Your task to perform on an android device: toggle airplane mode Image 0: 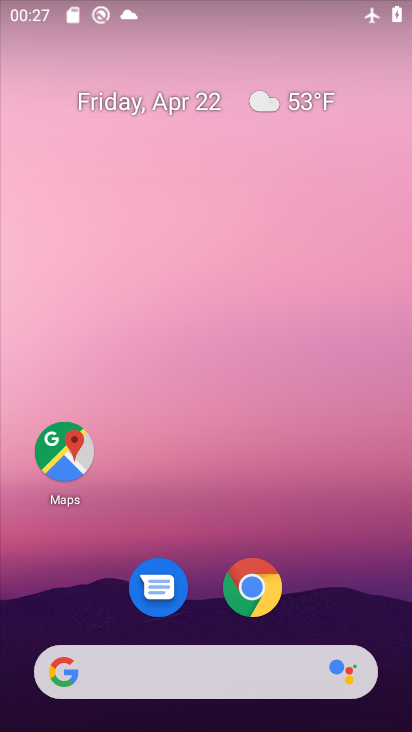
Step 0: drag from (319, 580) to (325, 209)
Your task to perform on an android device: toggle airplane mode Image 1: 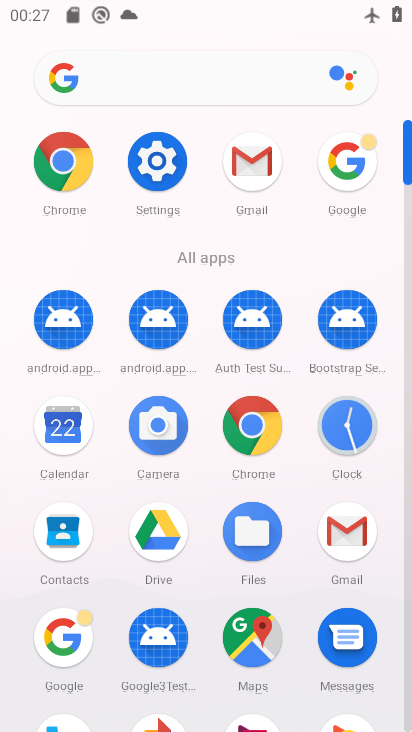
Step 1: click (164, 167)
Your task to perform on an android device: toggle airplane mode Image 2: 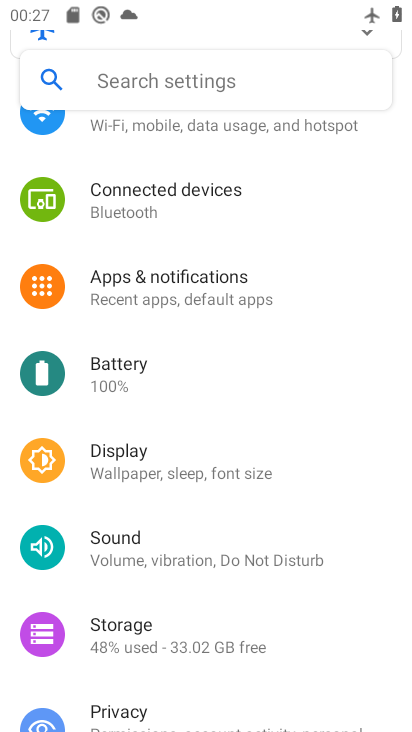
Step 2: click (238, 129)
Your task to perform on an android device: toggle airplane mode Image 3: 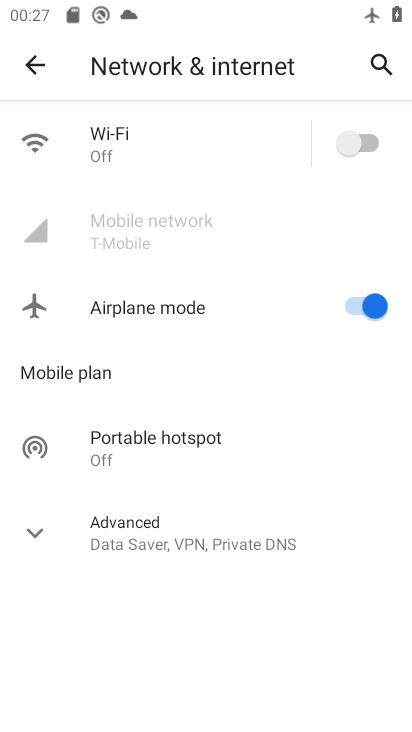
Step 3: click (367, 298)
Your task to perform on an android device: toggle airplane mode Image 4: 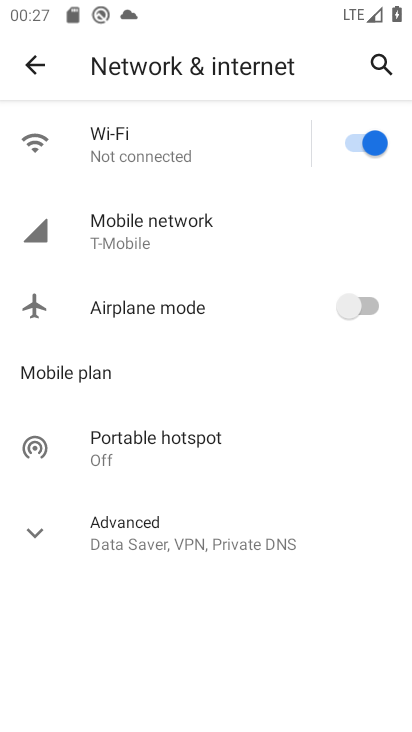
Step 4: task complete